Your task to perform on an android device: clear all cookies in the chrome app Image 0: 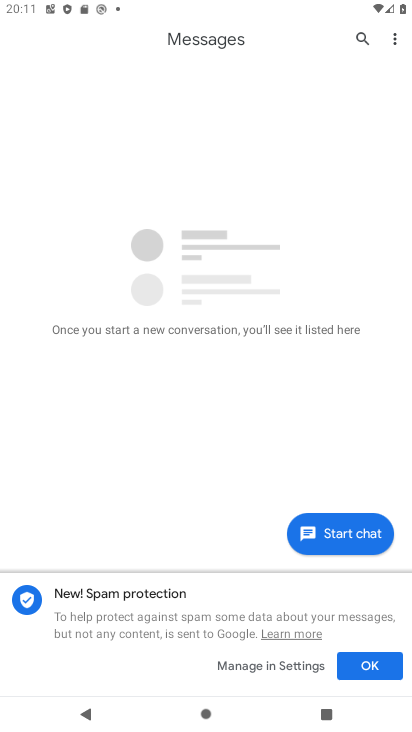
Step 0: press home button
Your task to perform on an android device: clear all cookies in the chrome app Image 1: 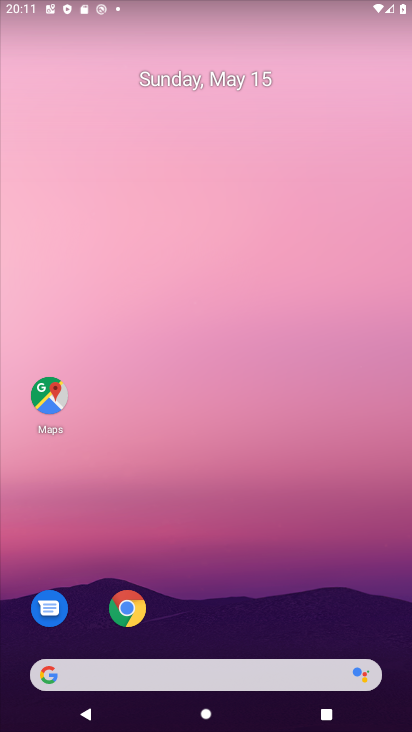
Step 1: click (128, 611)
Your task to perform on an android device: clear all cookies in the chrome app Image 2: 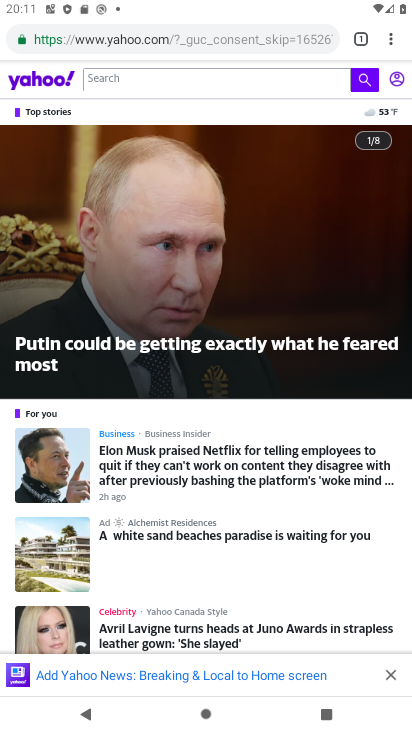
Step 2: click (381, 40)
Your task to perform on an android device: clear all cookies in the chrome app Image 3: 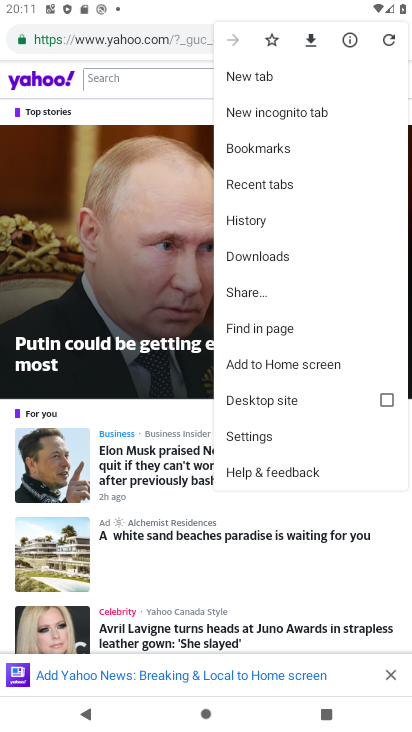
Step 3: click (256, 431)
Your task to perform on an android device: clear all cookies in the chrome app Image 4: 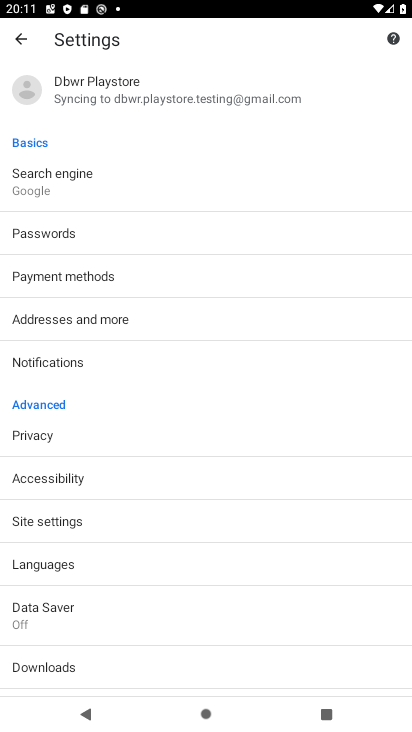
Step 4: click (40, 438)
Your task to perform on an android device: clear all cookies in the chrome app Image 5: 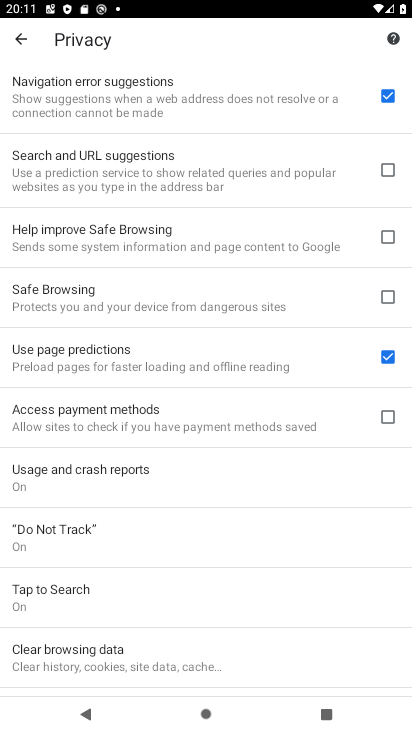
Step 5: drag from (163, 550) to (183, 226)
Your task to perform on an android device: clear all cookies in the chrome app Image 6: 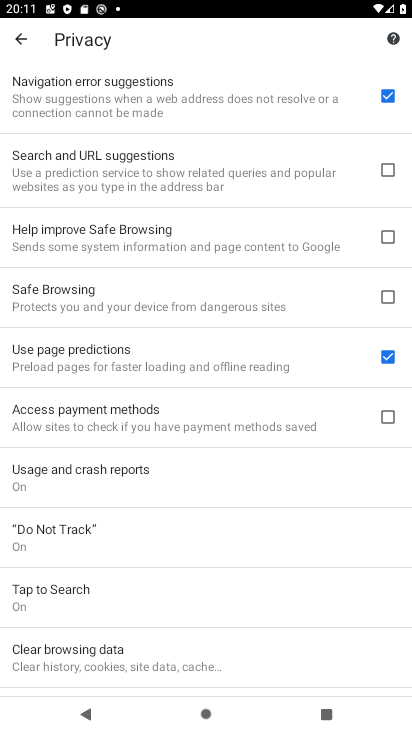
Step 6: click (136, 676)
Your task to perform on an android device: clear all cookies in the chrome app Image 7: 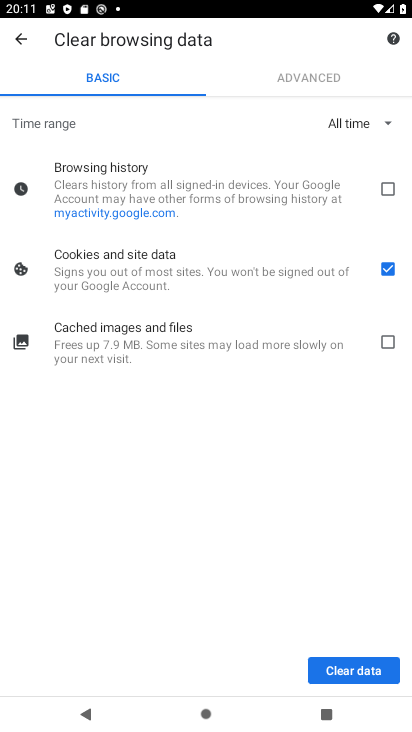
Step 7: click (340, 665)
Your task to perform on an android device: clear all cookies in the chrome app Image 8: 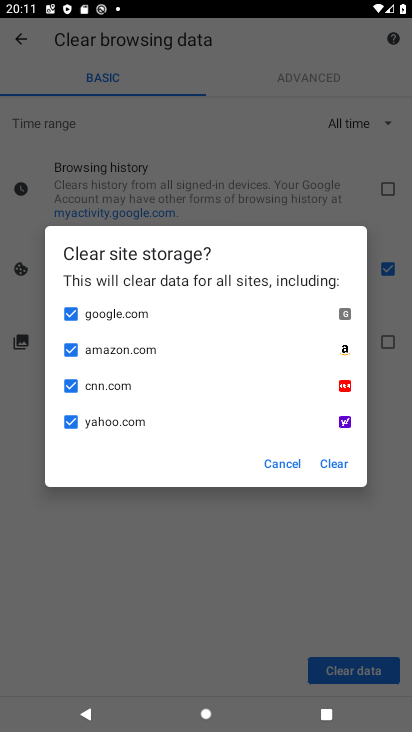
Step 8: click (328, 456)
Your task to perform on an android device: clear all cookies in the chrome app Image 9: 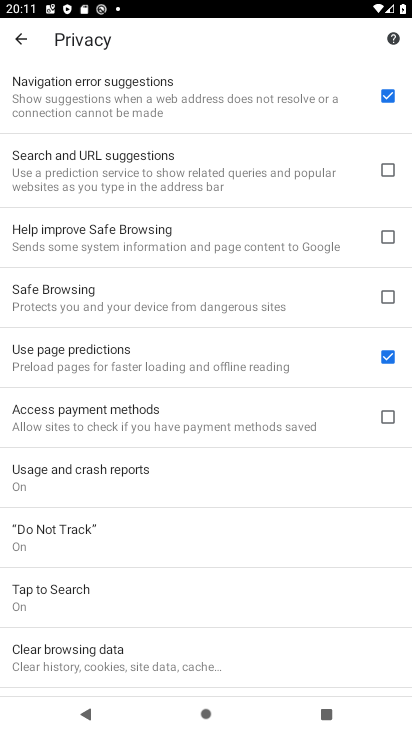
Step 9: task complete